Your task to perform on an android device: Open Maps and search for coffee Image 0: 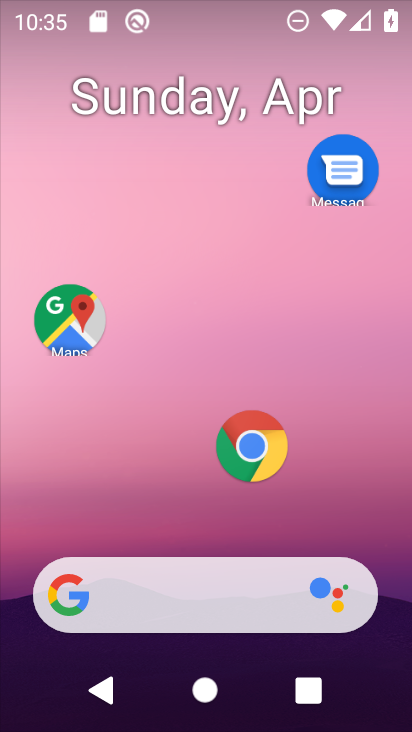
Step 0: drag from (248, 19) to (388, 671)
Your task to perform on an android device: Open Maps and search for coffee Image 1: 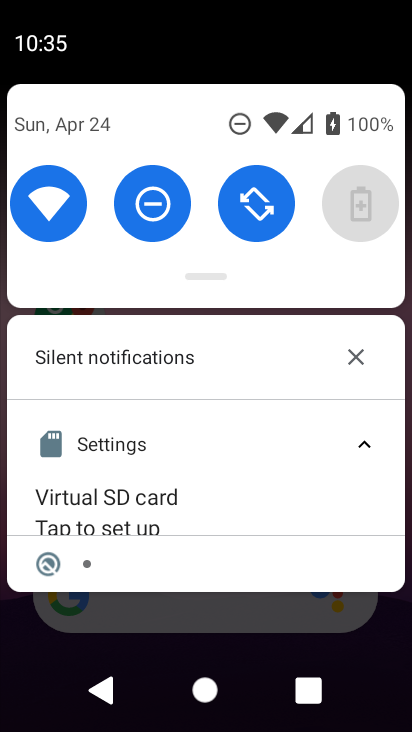
Step 1: drag from (226, 435) to (231, 221)
Your task to perform on an android device: Open Maps and search for coffee Image 2: 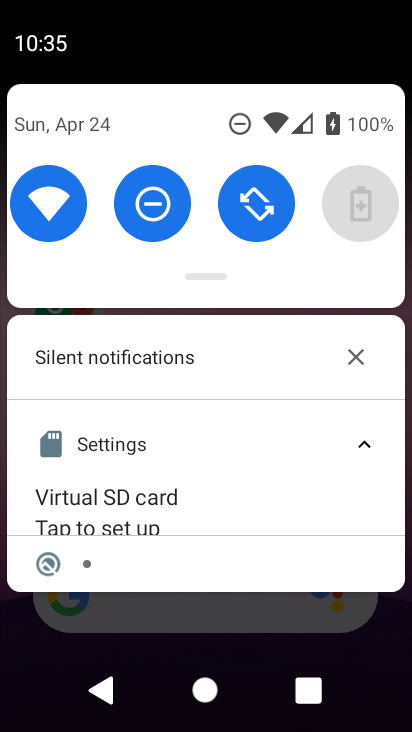
Step 2: press back button
Your task to perform on an android device: Open Maps and search for coffee Image 3: 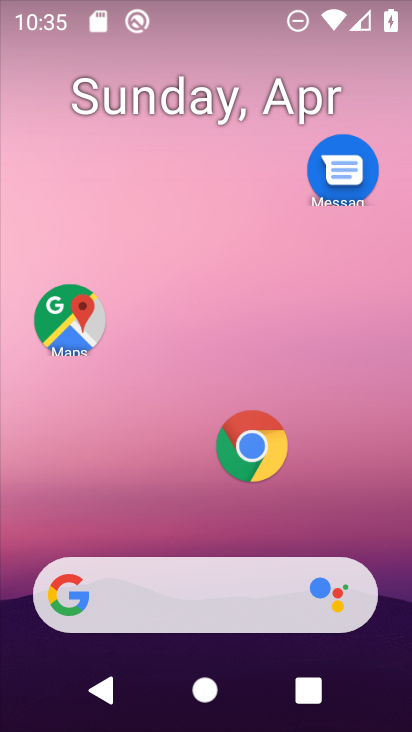
Step 3: click (65, 315)
Your task to perform on an android device: Open Maps and search for coffee Image 4: 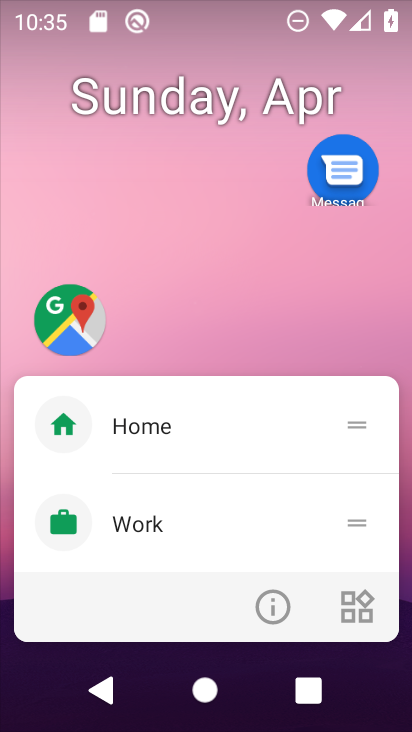
Step 4: click (283, 607)
Your task to perform on an android device: Open Maps and search for coffee Image 5: 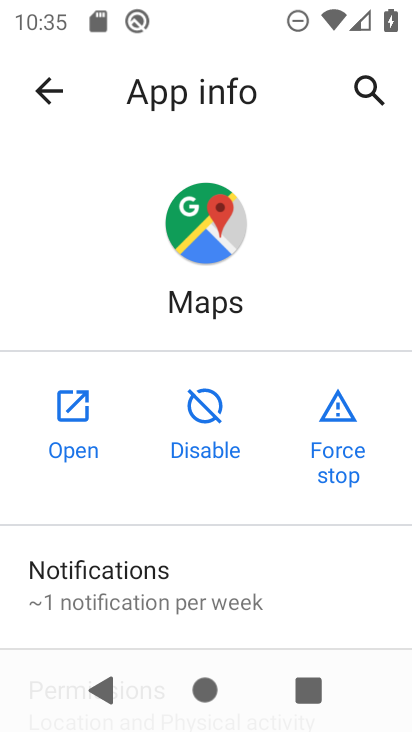
Step 5: click (92, 401)
Your task to perform on an android device: Open Maps and search for coffee Image 6: 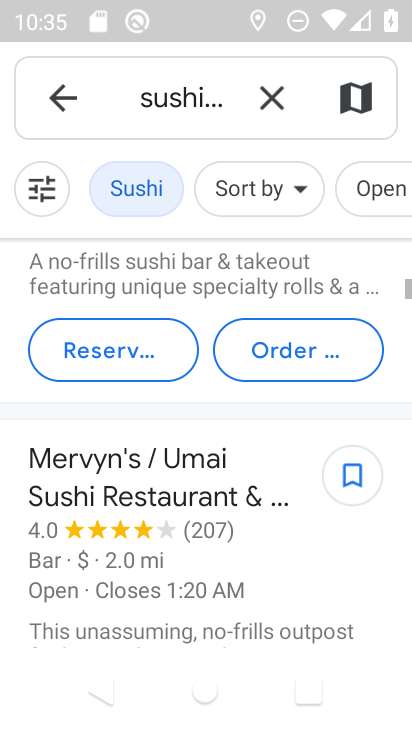
Step 6: drag from (224, 303) to (244, 635)
Your task to perform on an android device: Open Maps and search for coffee Image 7: 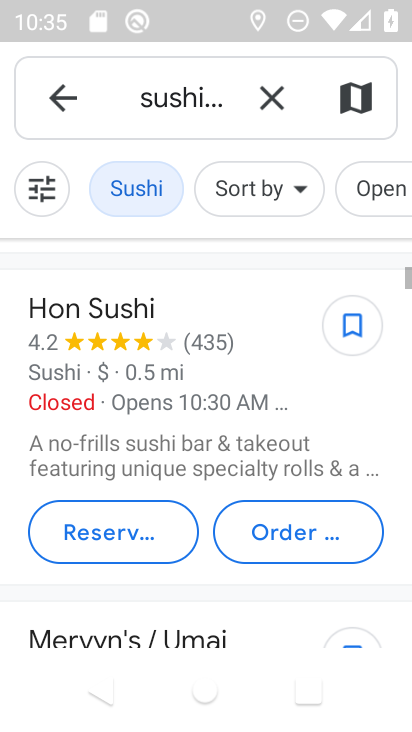
Step 7: click (266, 98)
Your task to perform on an android device: Open Maps and search for coffee Image 8: 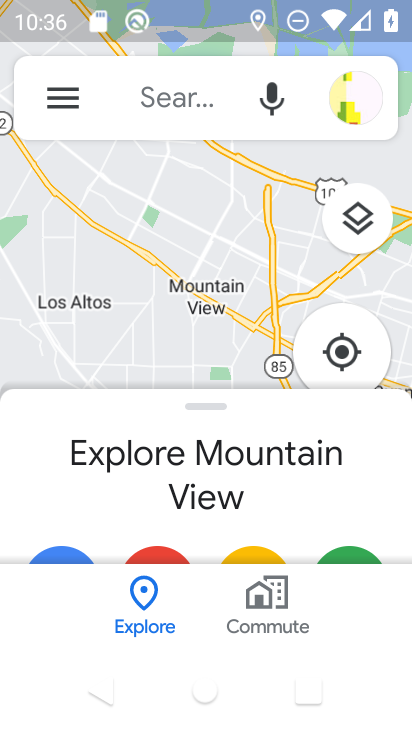
Step 8: click (172, 104)
Your task to perform on an android device: Open Maps and search for coffee Image 9: 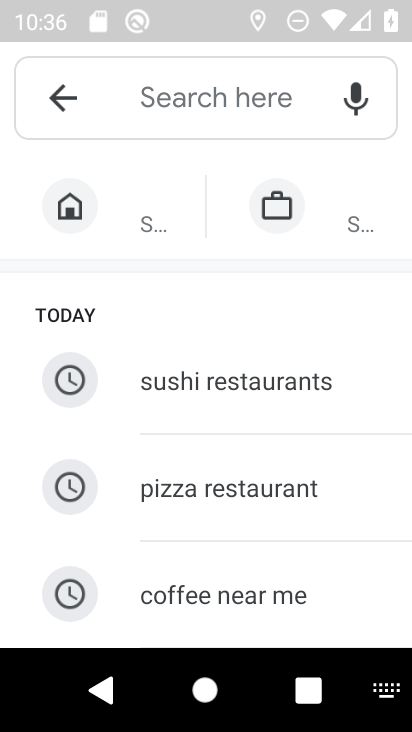
Step 9: type "coffee"
Your task to perform on an android device: Open Maps and search for coffee Image 10: 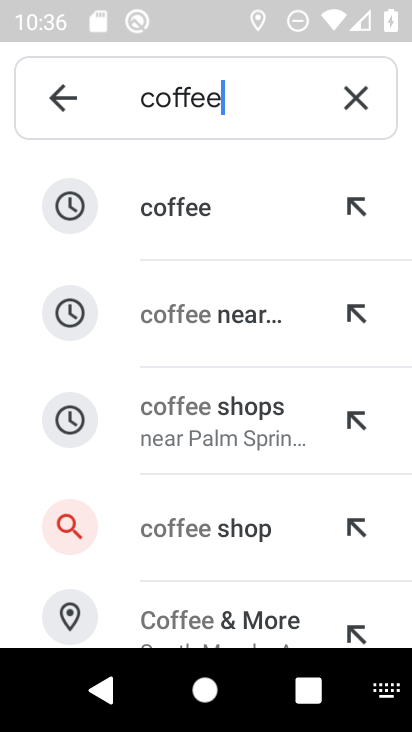
Step 10: click (228, 211)
Your task to perform on an android device: Open Maps and search for coffee Image 11: 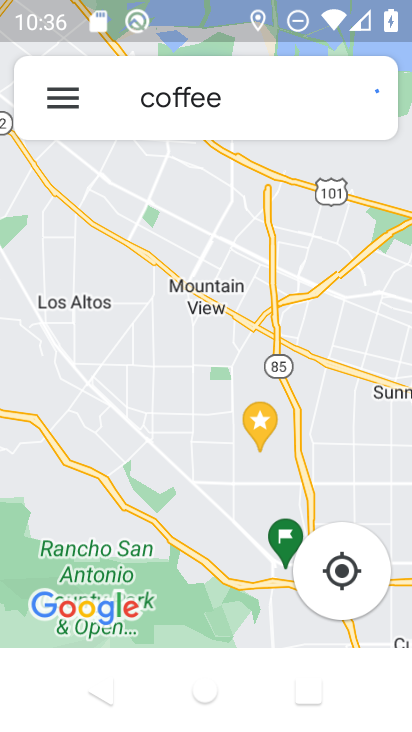
Step 11: task complete